Your task to perform on an android device: Open Google Image 0: 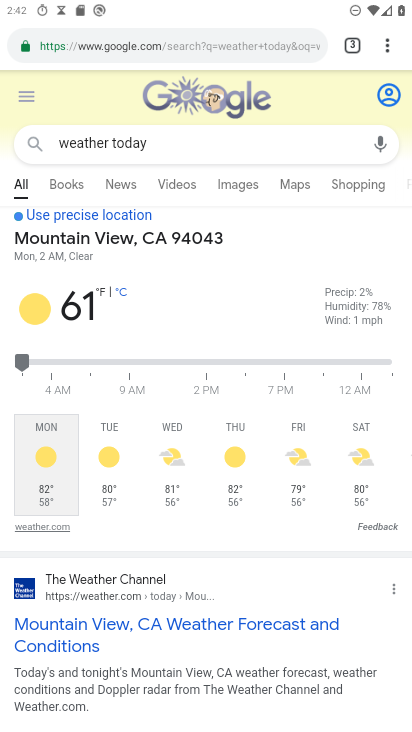
Step 0: drag from (386, 30) to (319, 86)
Your task to perform on an android device: Open Google Image 1: 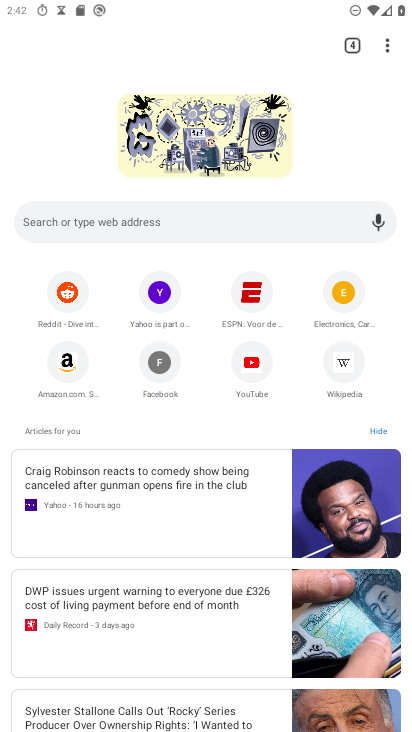
Step 1: task complete